Your task to perform on an android device: Show me productivity apps on the Play Store Image 0: 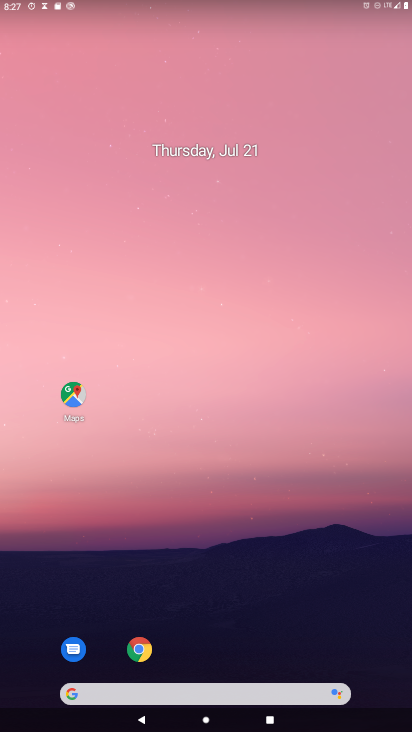
Step 0: drag from (277, 533) to (120, 28)
Your task to perform on an android device: Show me productivity apps on the Play Store Image 1: 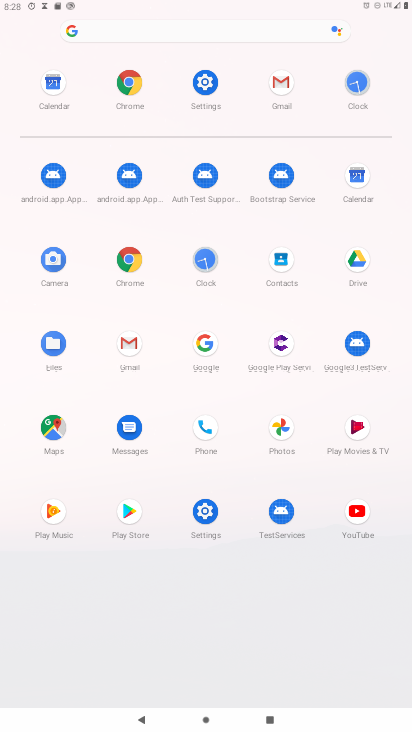
Step 1: click (134, 509)
Your task to perform on an android device: Show me productivity apps on the Play Store Image 2: 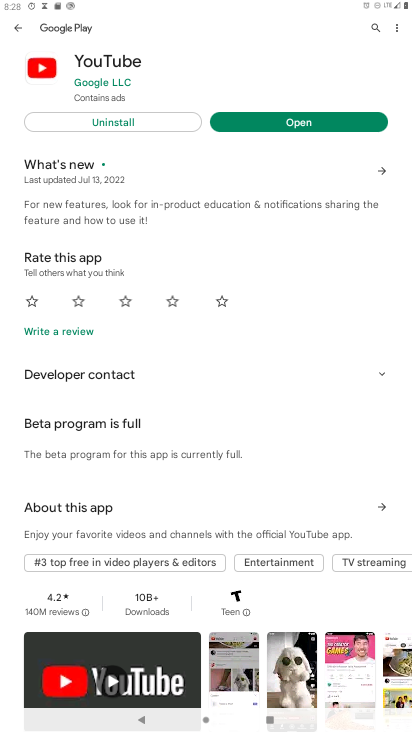
Step 2: task complete